Your task to perform on an android device: Set the phone to "Do not disturb". Image 0: 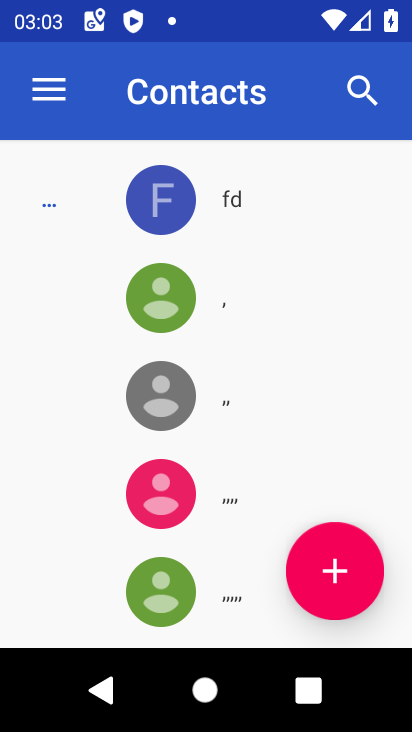
Step 0: press home button
Your task to perform on an android device: Set the phone to "Do not disturb". Image 1: 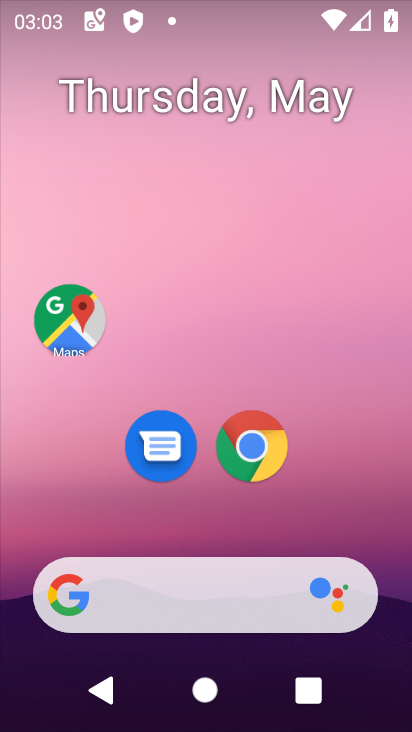
Step 1: drag from (359, 545) to (380, 0)
Your task to perform on an android device: Set the phone to "Do not disturb". Image 2: 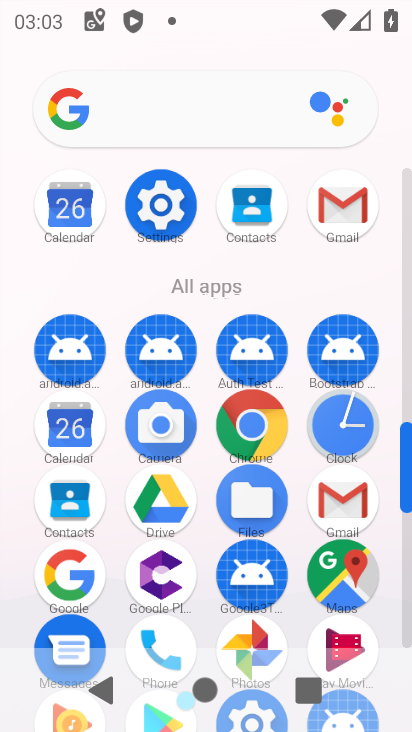
Step 2: click (160, 208)
Your task to perform on an android device: Set the phone to "Do not disturb". Image 3: 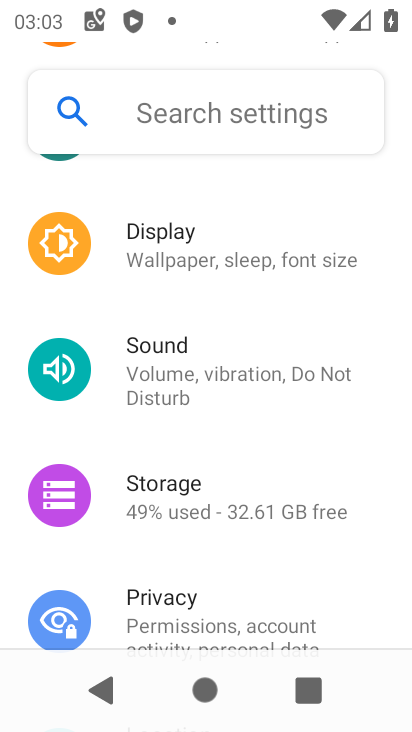
Step 3: click (175, 377)
Your task to perform on an android device: Set the phone to "Do not disturb". Image 4: 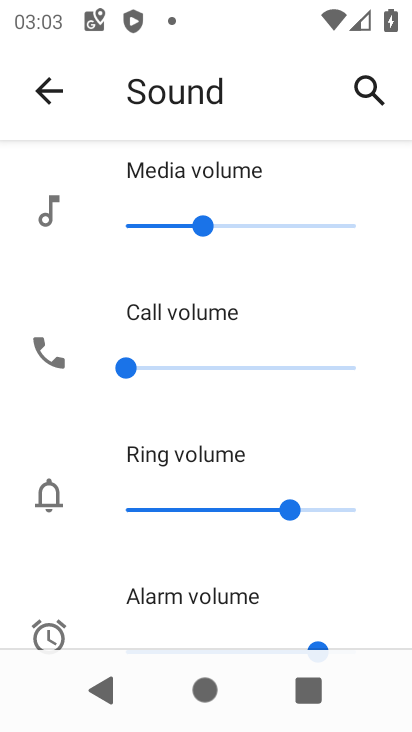
Step 4: drag from (215, 534) to (215, 195)
Your task to perform on an android device: Set the phone to "Do not disturb". Image 5: 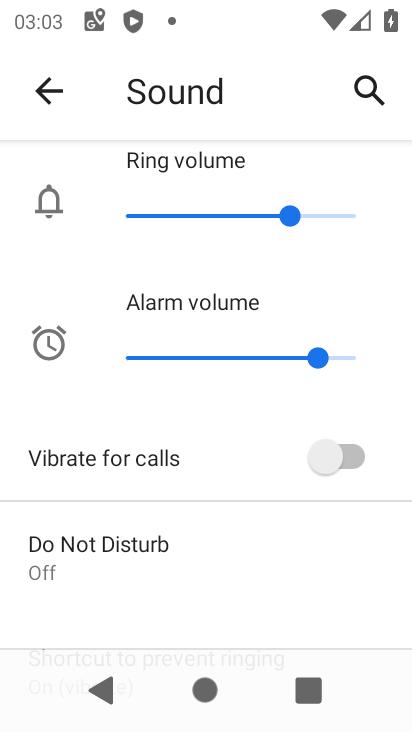
Step 5: click (80, 545)
Your task to perform on an android device: Set the phone to "Do not disturb". Image 6: 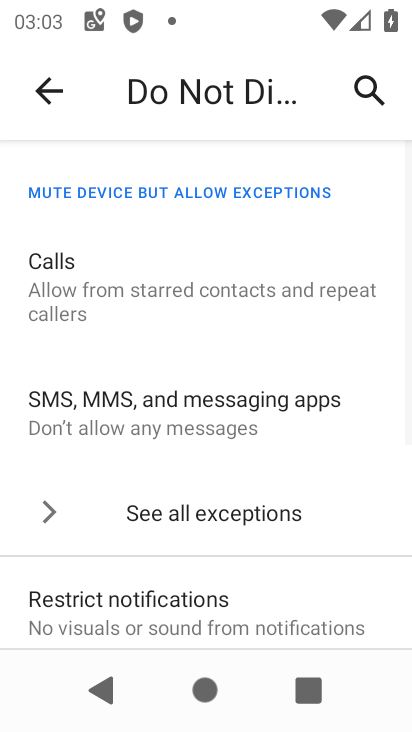
Step 6: drag from (193, 540) to (194, 163)
Your task to perform on an android device: Set the phone to "Do not disturb". Image 7: 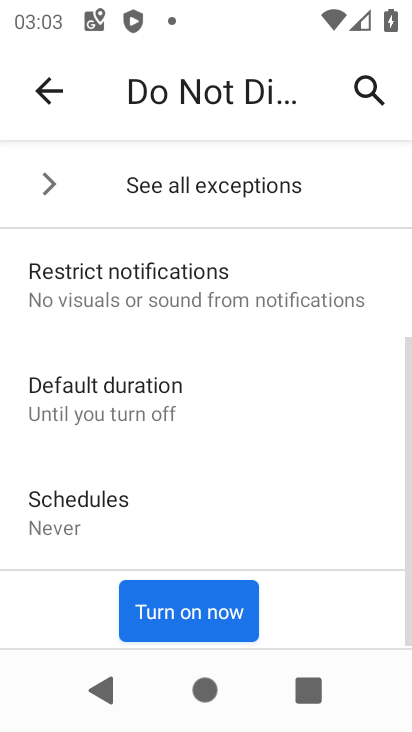
Step 7: drag from (170, 530) to (178, 243)
Your task to perform on an android device: Set the phone to "Do not disturb". Image 8: 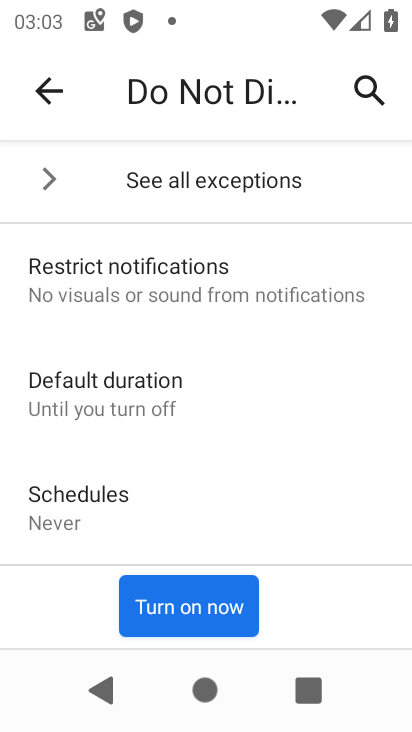
Step 8: click (168, 603)
Your task to perform on an android device: Set the phone to "Do not disturb". Image 9: 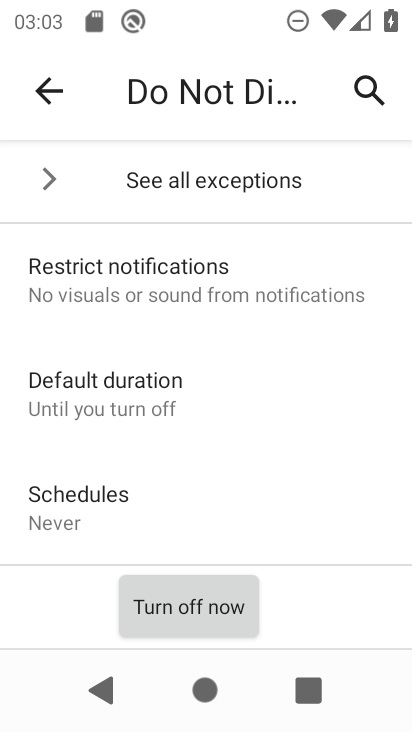
Step 9: task complete